Your task to perform on an android device: Open Yahoo.com Image 0: 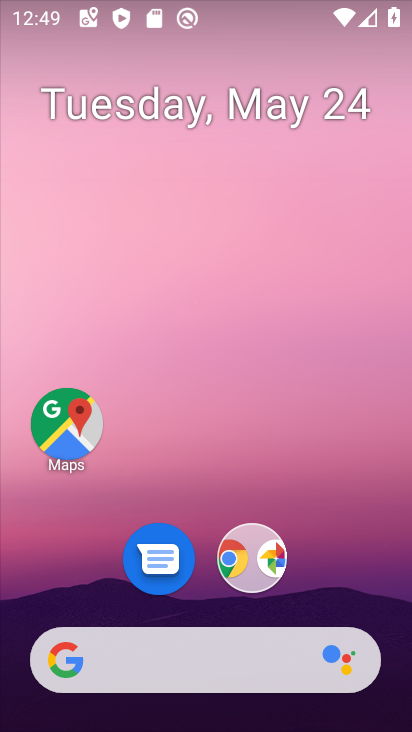
Step 0: drag from (326, 650) to (204, 77)
Your task to perform on an android device: Open Yahoo.com Image 1: 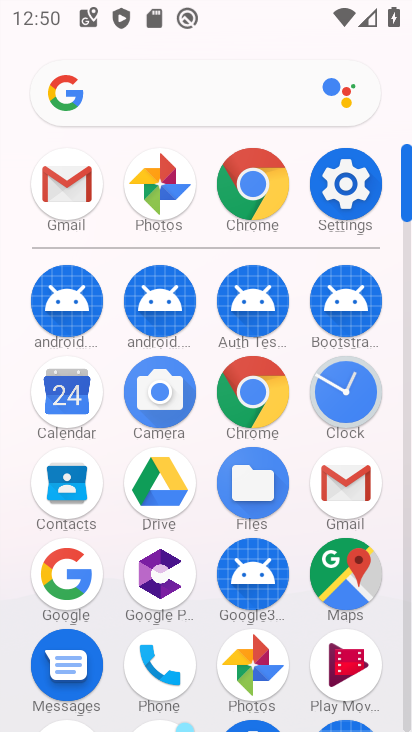
Step 1: click (347, 181)
Your task to perform on an android device: Open Yahoo.com Image 2: 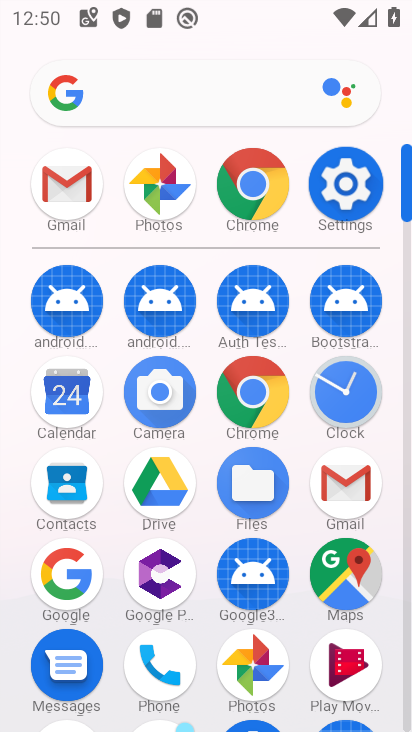
Step 2: click (347, 181)
Your task to perform on an android device: Open Yahoo.com Image 3: 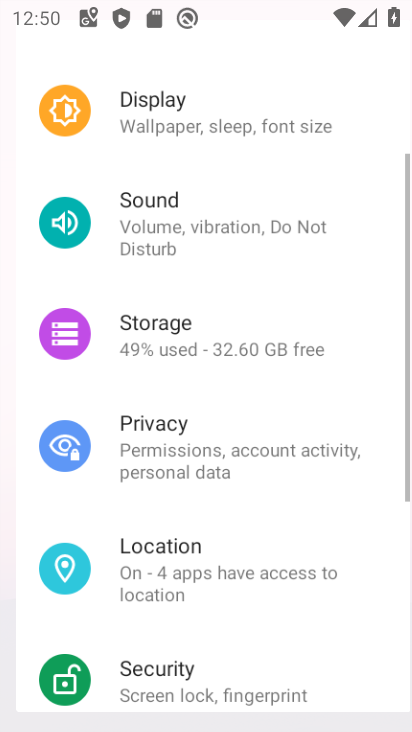
Step 3: click (348, 180)
Your task to perform on an android device: Open Yahoo.com Image 4: 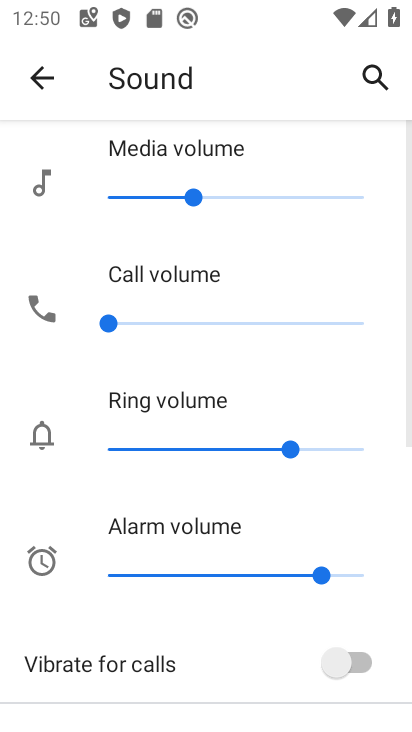
Step 4: click (43, 76)
Your task to perform on an android device: Open Yahoo.com Image 5: 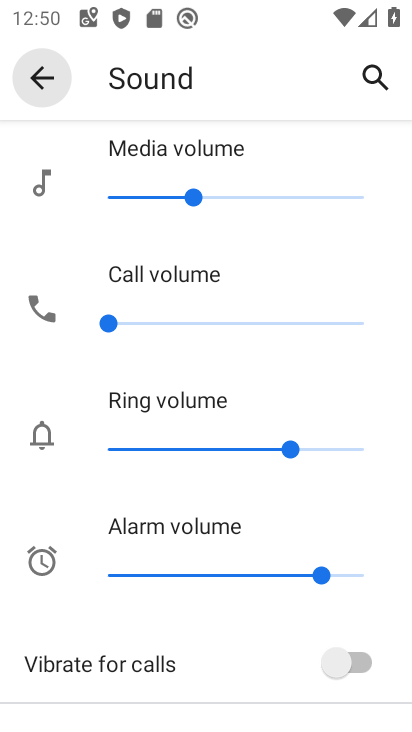
Step 5: click (42, 77)
Your task to perform on an android device: Open Yahoo.com Image 6: 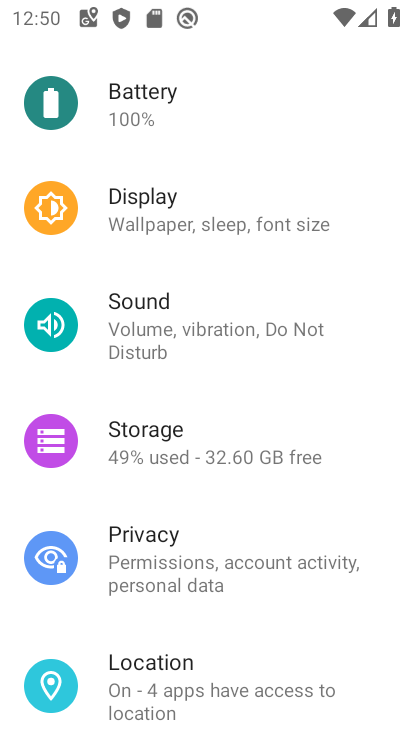
Step 6: drag from (204, 510) to (224, 95)
Your task to perform on an android device: Open Yahoo.com Image 7: 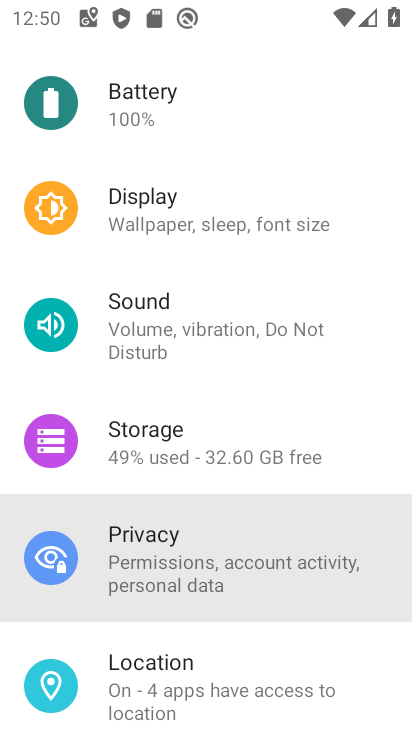
Step 7: drag from (252, 532) to (281, 292)
Your task to perform on an android device: Open Yahoo.com Image 8: 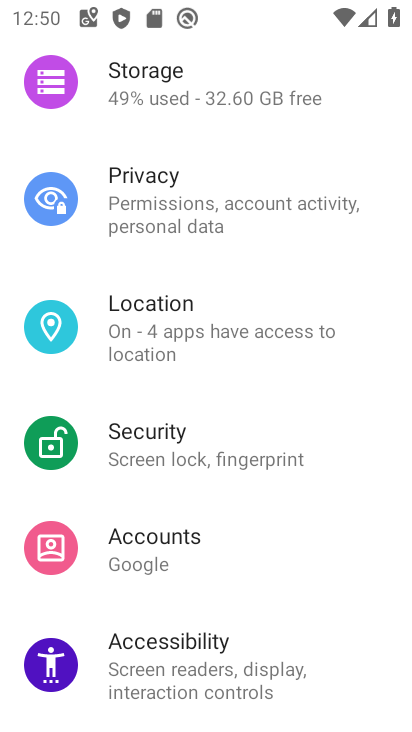
Step 8: drag from (188, 555) to (148, 197)
Your task to perform on an android device: Open Yahoo.com Image 9: 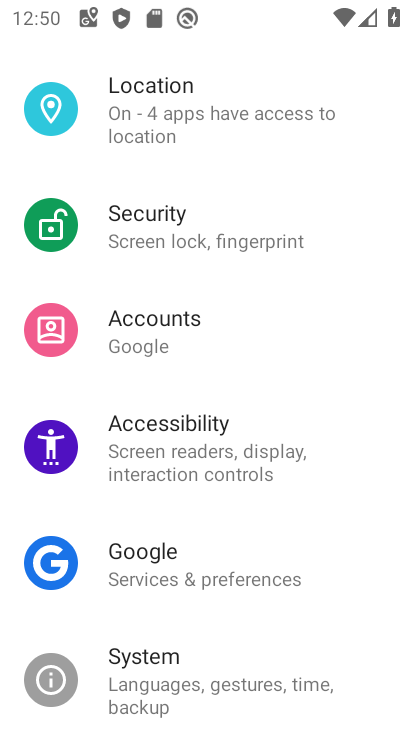
Step 9: drag from (195, 507) to (156, 159)
Your task to perform on an android device: Open Yahoo.com Image 10: 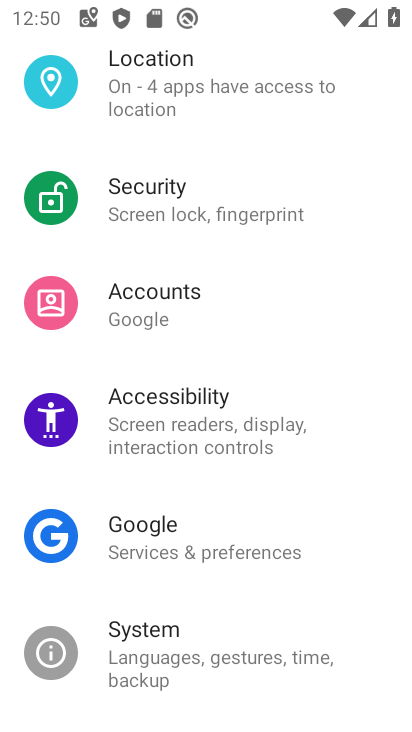
Step 10: drag from (243, 584) to (266, 154)
Your task to perform on an android device: Open Yahoo.com Image 11: 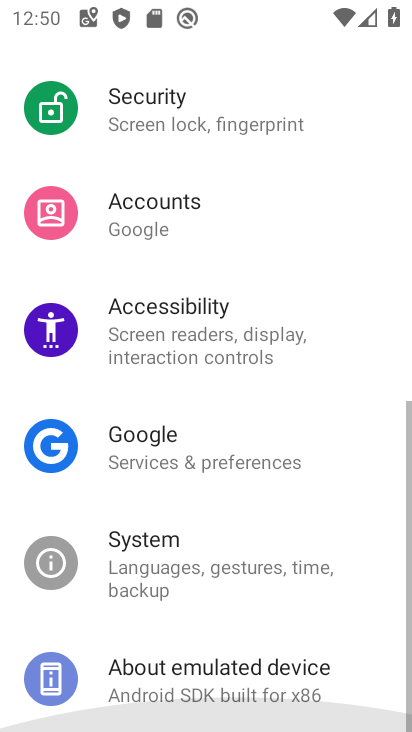
Step 11: drag from (272, 520) to (240, 136)
Your task to perform on an android device: Open Yahoo.com Image 12: 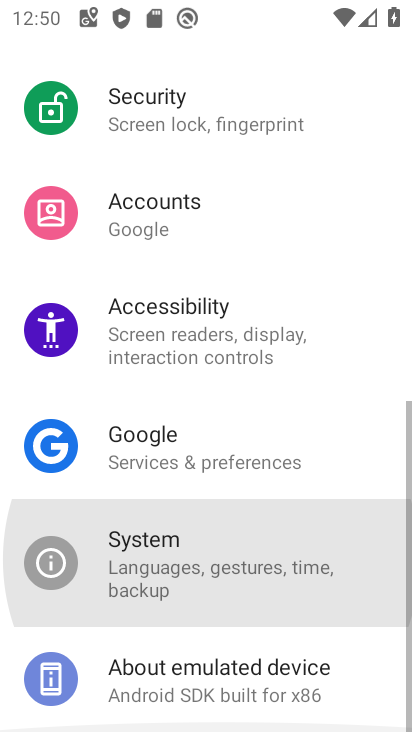
Step 12: drag from (254, 525) to (206, 224)
Your task to perform on an android device: Open Yahoo.com Image 13: 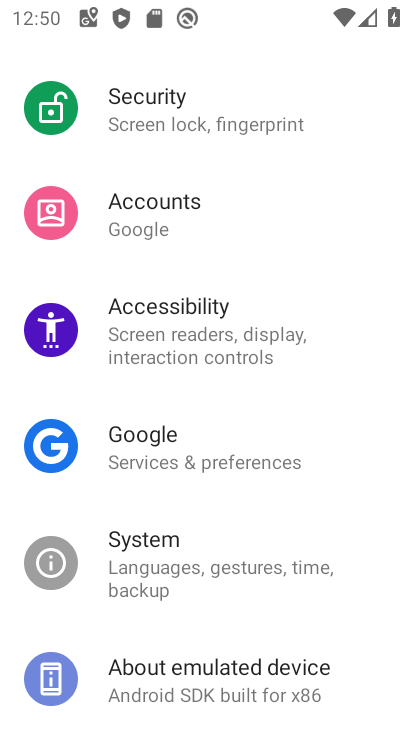
Step 13: press back button
Your task to perform on an android device: Open Yahoo.com Image 14: 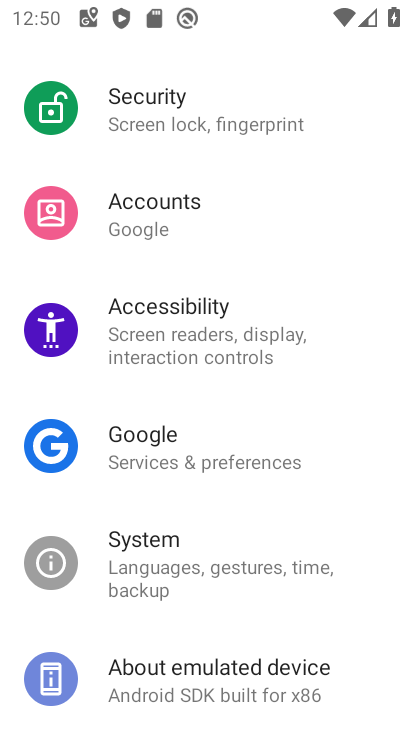
Step 14: press back button
Your task to perform on an android device: Open Yahoo.com Image 15: 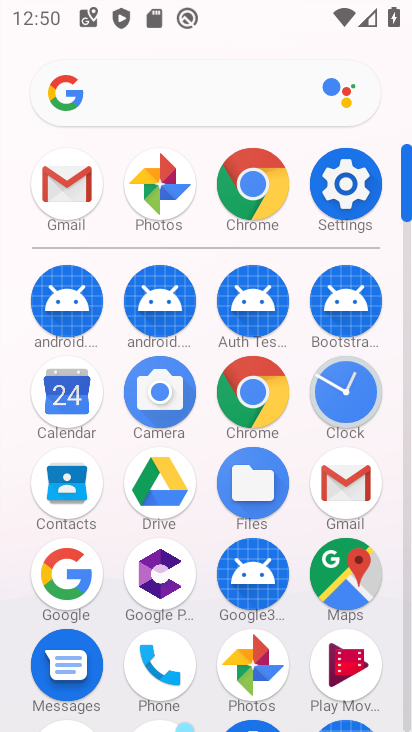
Step 15: press back button
Your task to perform on an android device: Open Yahoo.com Image 16: 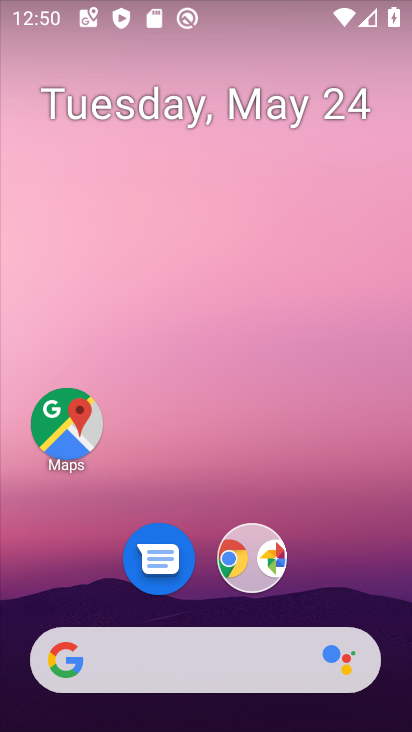
Step 16: drag from (248, 683) to (197, 25)
Your task to perform on an android device: Open Yahoo.com Image 17: 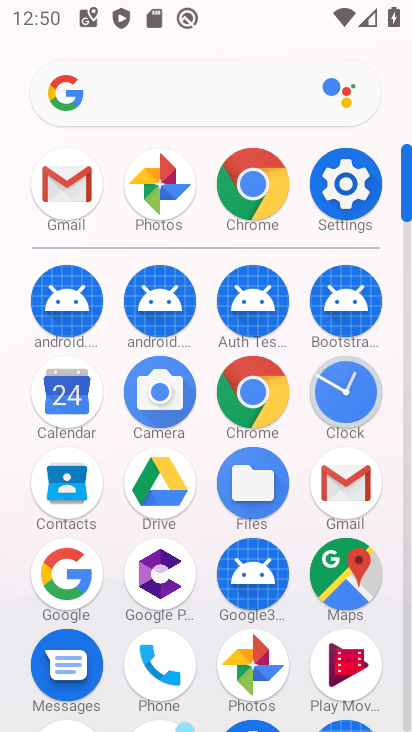
Step 17: drag from (261, 544) to (204, 84)
Your task to perform on an android device: Open Yahoo.com Image 18: 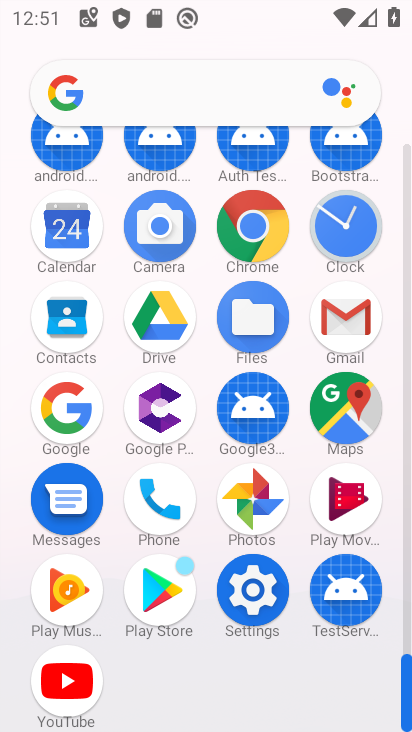
Step 18: click (238, 230)
Your task to perform on an android device: Open Yahoo.com Image 19: 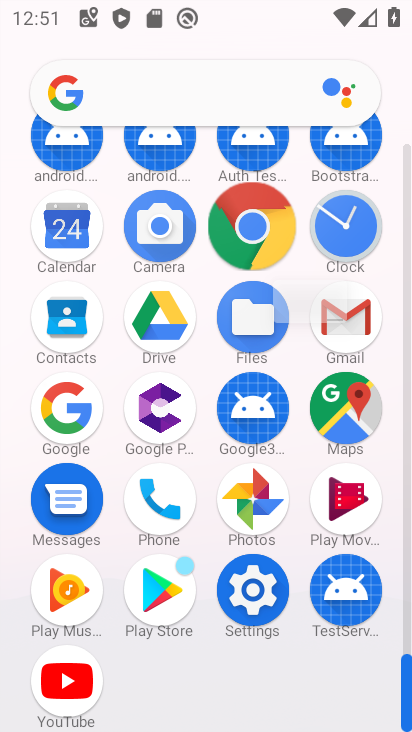
Step 19: click (238, 232)
Your task to perform on an android device: Open Yahoo.com Image 20: 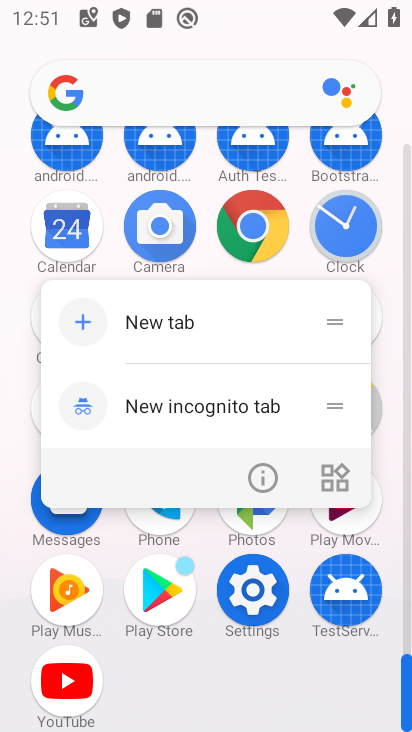
Step 20: click (254, 212)
Your task to perform on an android device: Open Yahoo.com Image 21: 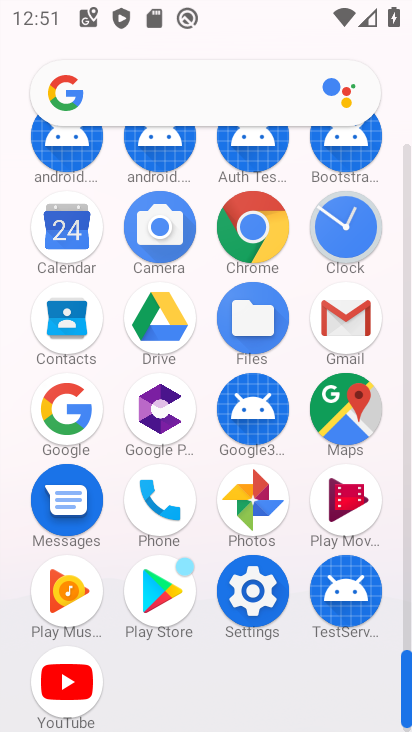
Step 21: click (259, 234)
Your task to perform on an android device: Open Yahoo.com Image 22: 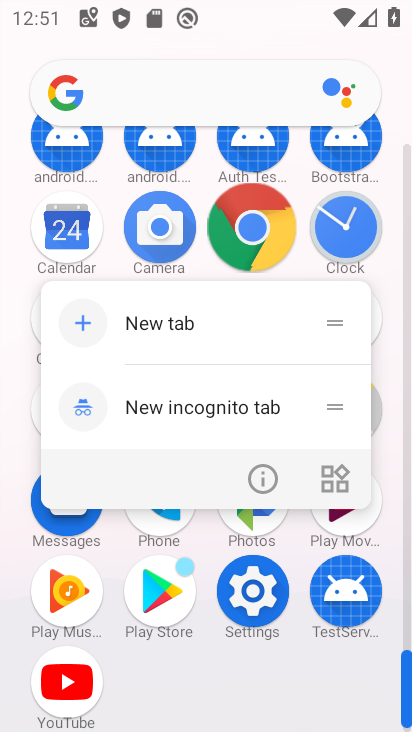
Step 22: click (245, 230)
Your task to perform on an android device: Open Yahoo.com Image 23: 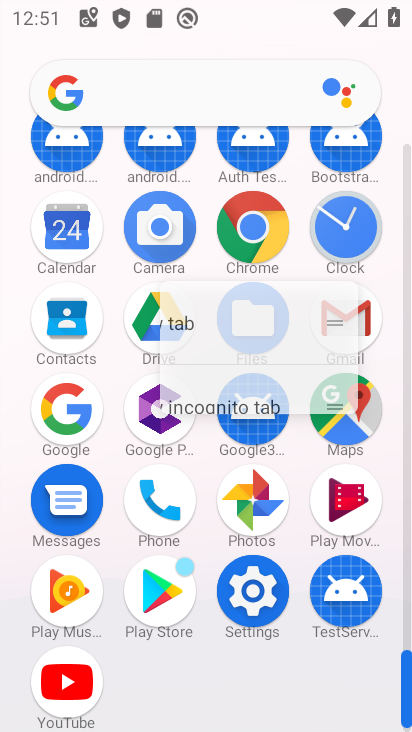
Step 23: click (247, 231)
Your task to perform on an android device: Open Yahoo.com Image 24: 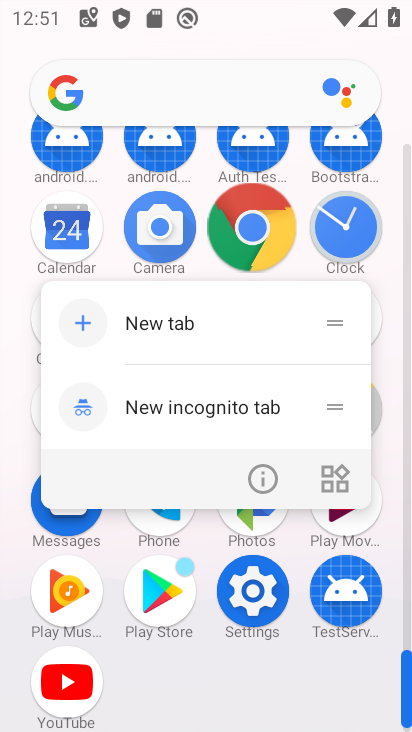
Step 24: click (249, 233)
Your task to perform on an android device: Open Yahoo.com Image 25: 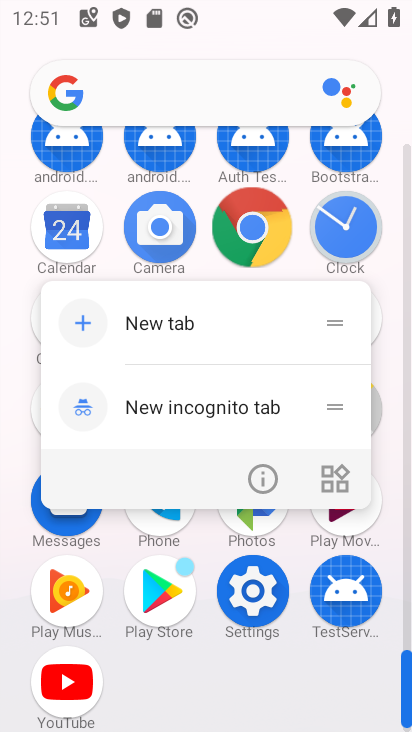
Step 25: click (249, 233)
Your task to perform on an android device: Open Yahoo.com Image 26: 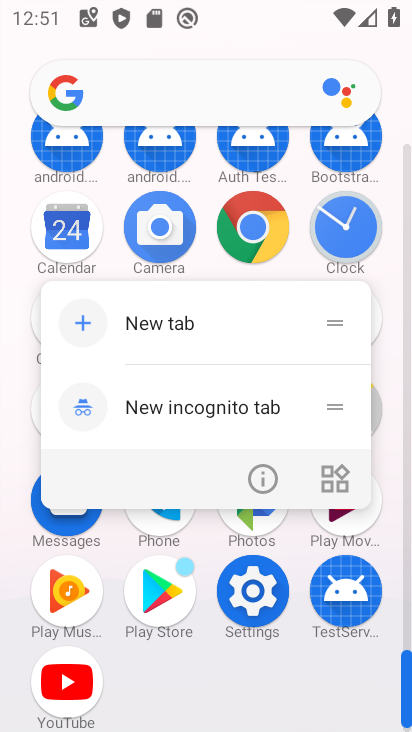
Step 26: click (248, 205)
Your task to perform on an android device: Open Yahoo.com Image 27: 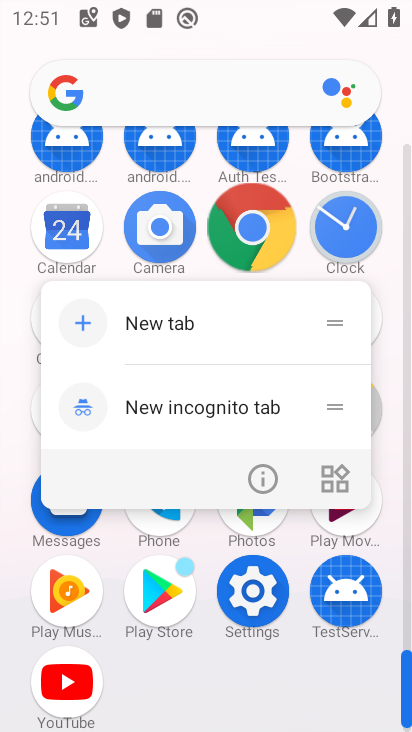
Step 27: click (252, 217)
Your task to perform on an android device: Open Yahoo.com Image 28: 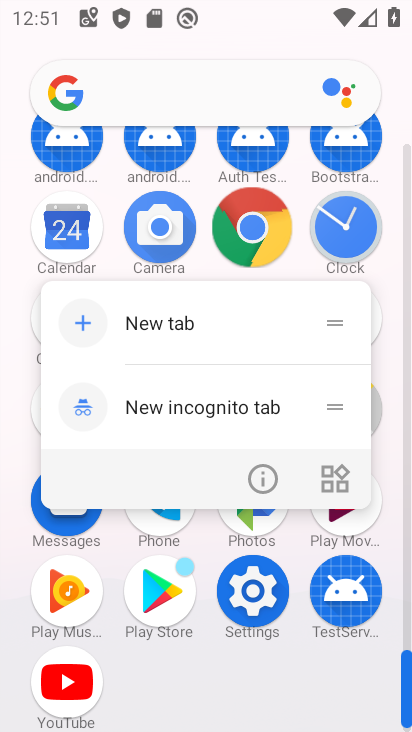
Step 28: click (252, 218)
Your task to perform on an android device: Open Yahoo.com Image 29: 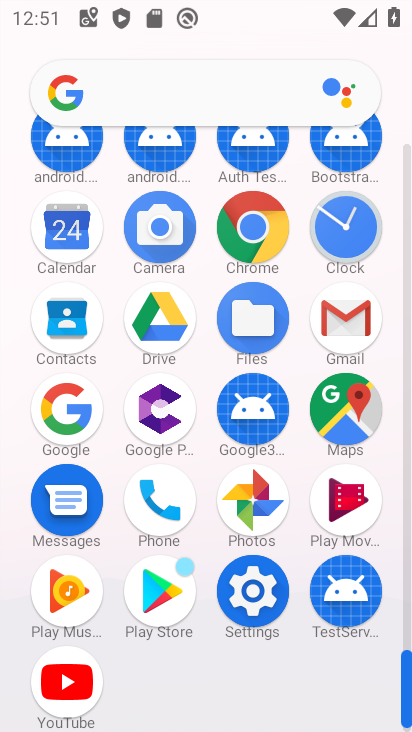
Step 29: click (254, 226)
Your task to perform on an android device: Open Yahoo.com Image 30: 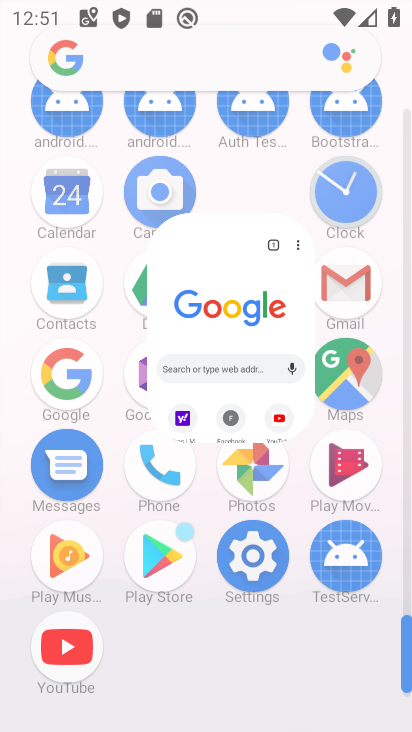
Step 30: click (254, 227)
Your task to perform on an android device: Open Yahoo.com Image 31: 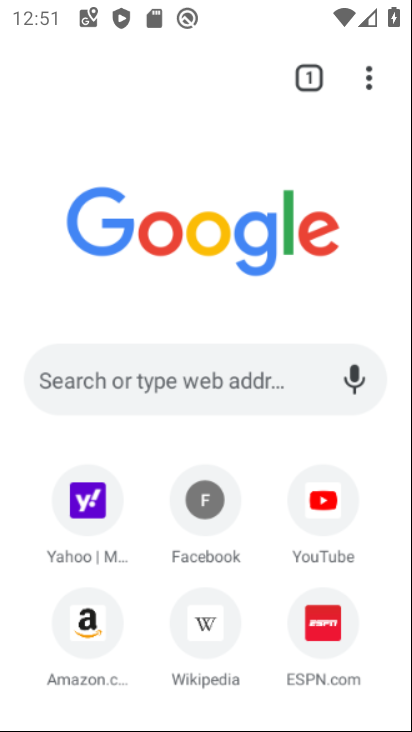
Step 31: click (255, 229)
Your task to perform on an android device: Open Yahoo.com Image 32: 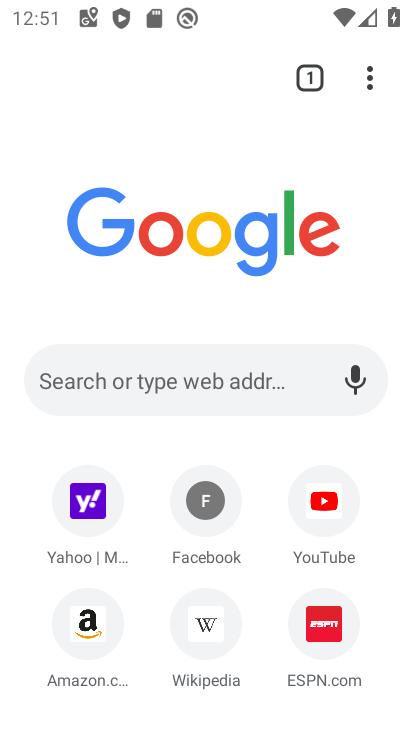
Step 32: click (361, 81)
Your task to perform on an android device: Open Yahoo.com Image 33: 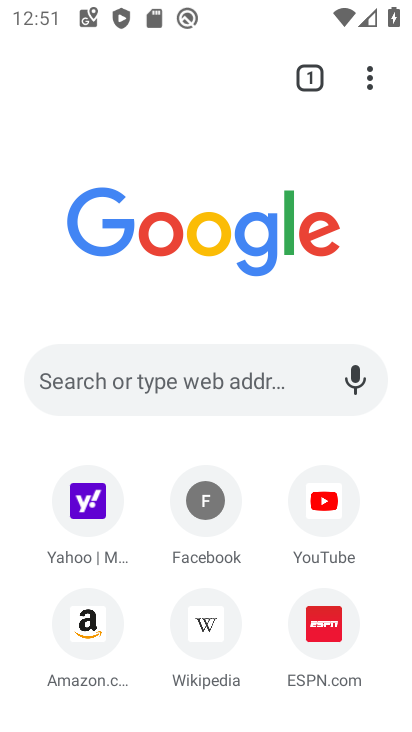
Step 33: click (361, 89)
Your task to perform on an android device: Open Yahoo.com Image 34: 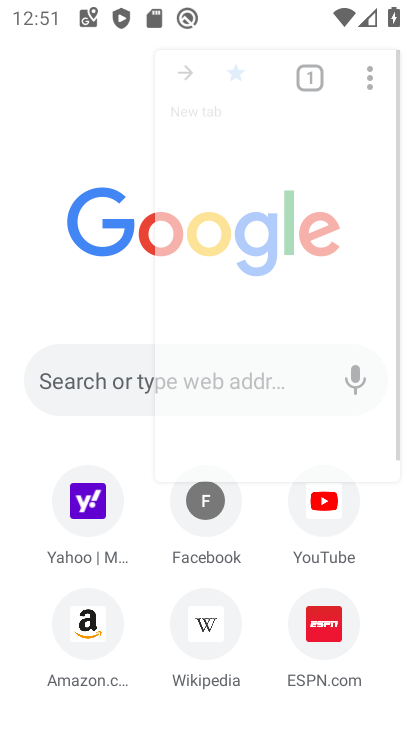
Step 34: click (367, 89)
Your task to perform on an android device: Open Yahoo.com Image 35: 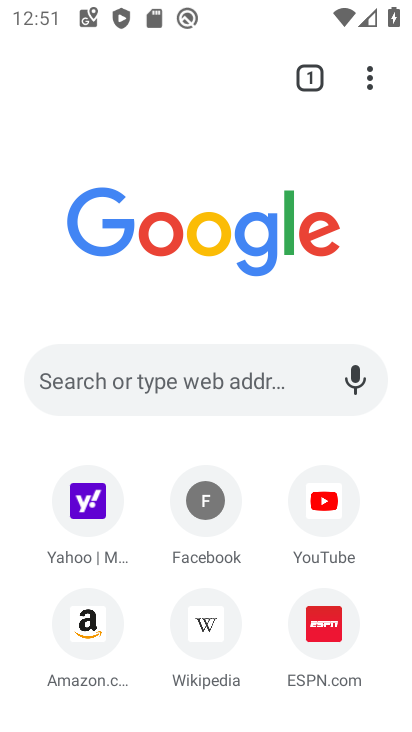
Step 35: drag from (357, 70) to (78, 114)
Your task to perform on an android device: Open Yahoo.com Image 36: 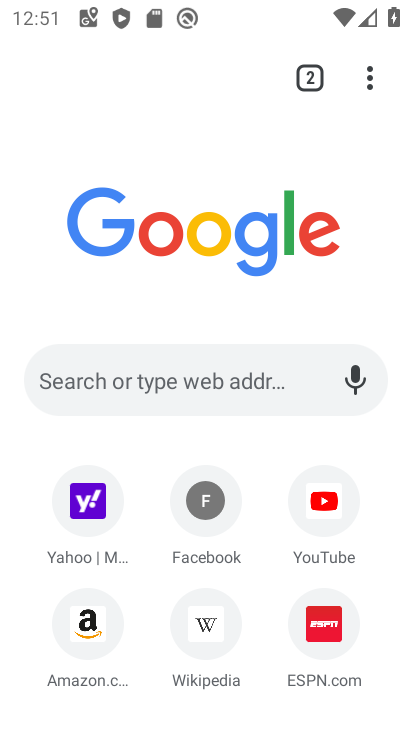
Step 36: click (82, 381)
Your task to perform on an android device: Open Yahoo.com Image 37: 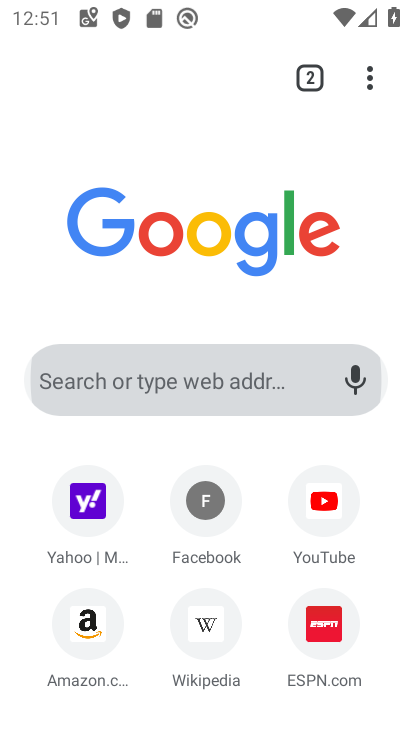
Step 37: click (84, 378)
Your task to perform on an android device: Open Yahoo.com Image 38: 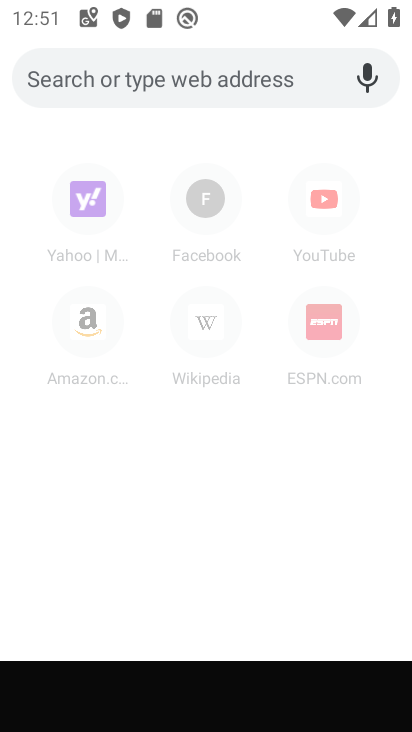
Step 38: click (83, 379)
Your task to perform on an android device: Open Yahoo.com Image 39: 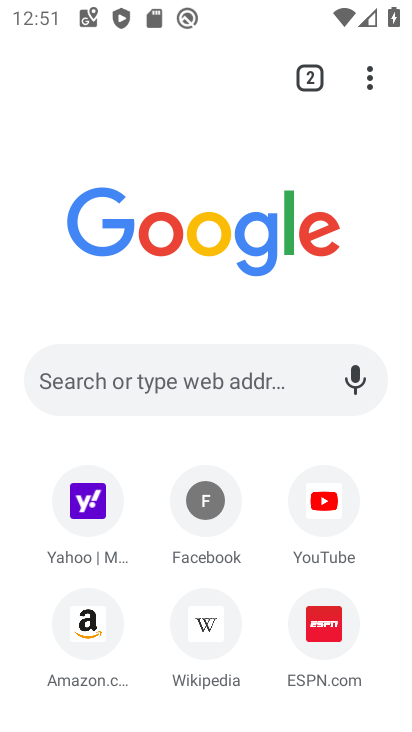
Step 39: click (87, 384)
Your task to perform on an android device: Open Yahoo.com Image 40: 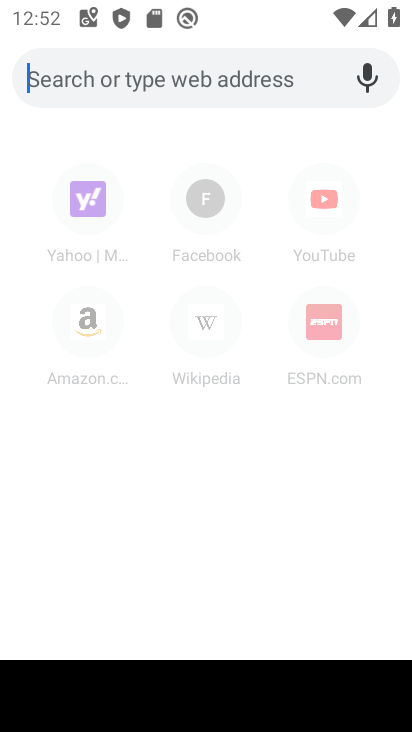
Step 40: type "yahoo.com"
Your task to perform on an android device: Open Yahoo.com Image 41: 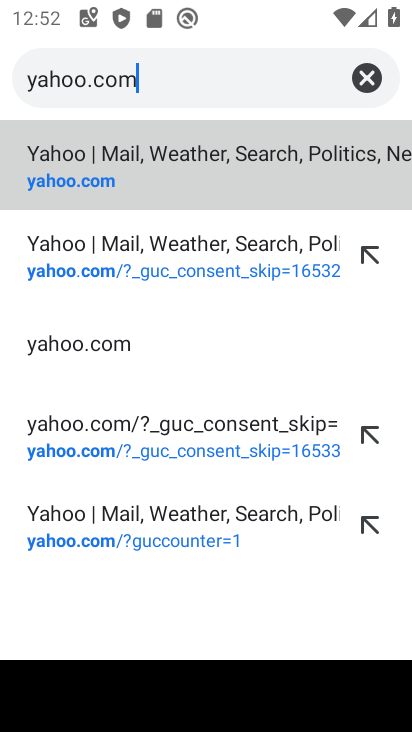
Step 41: click (74, 179)
Your task to perform on an android device: Open Yahoo.com Image 42: 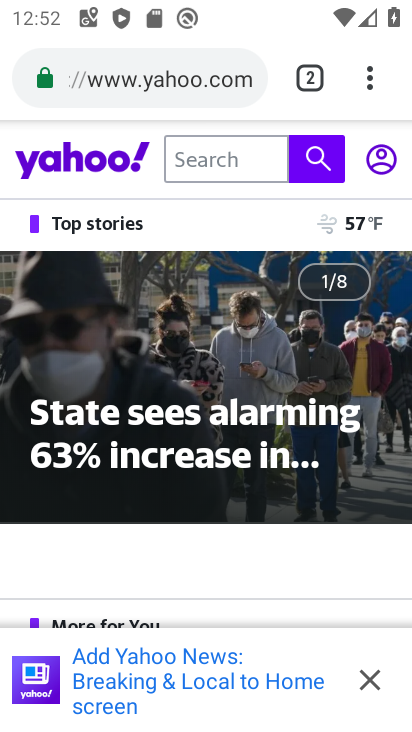
Step 42: task complete